Your task to perform on an android device: empty trash in the gmail app Image 0: 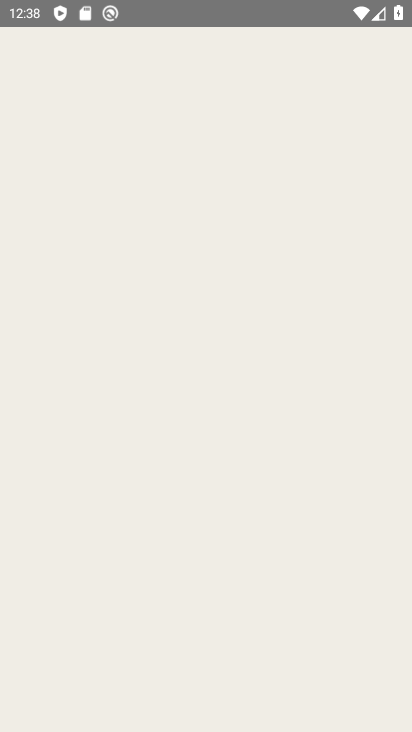
Step 0: drag from (365, 531) to (304, 241)
Your task to perform on an android device: empty trash in the gmail app Image 1: 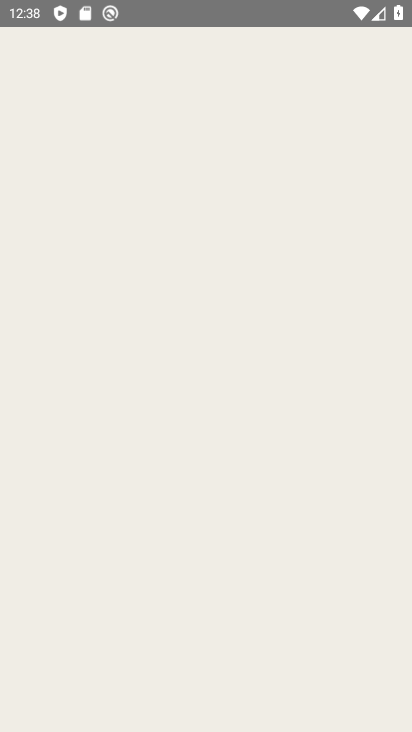
Step 1: press home button
Your task to perform on an android device: empty trash in the gmail app Image 2: 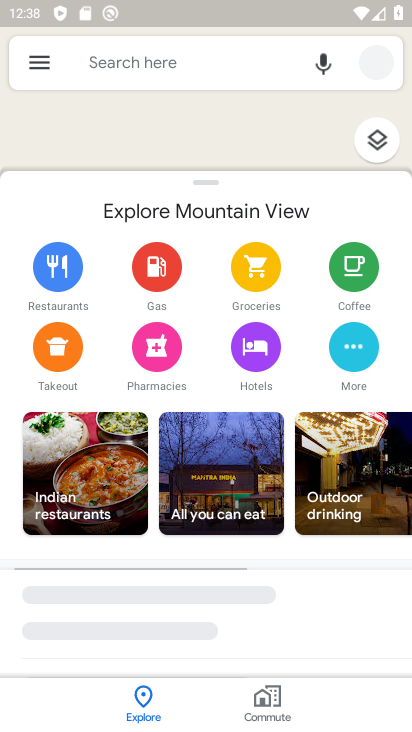
Step 2: drag from (304, 241) to (370, 516)
Your task to perform on an android device: empty trash in the gmail app Image 3: 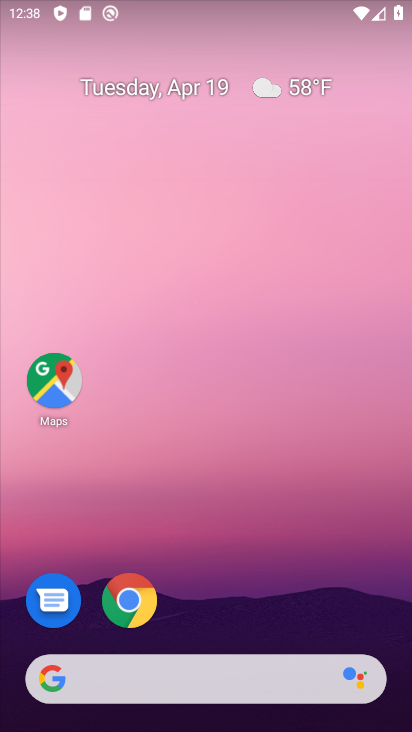
Step 3: drag from (307, 583) to (204, 179)
Your task to perform on an android device: empty trash in the gmail app Image 4: 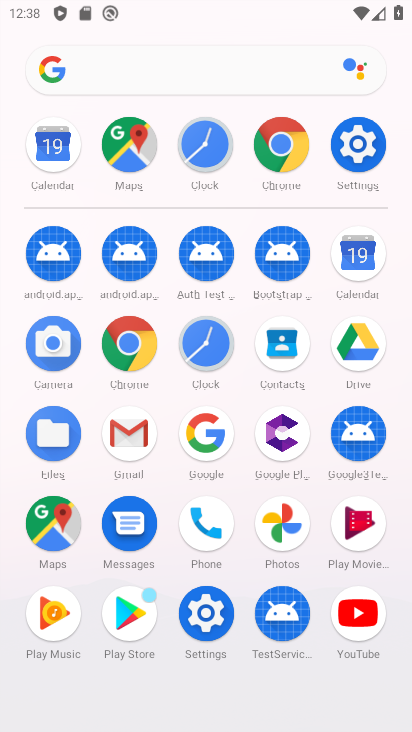
Step 4: click (126, 450)
Your task to perform on an android device: empty trash in the gmail app Image 5: 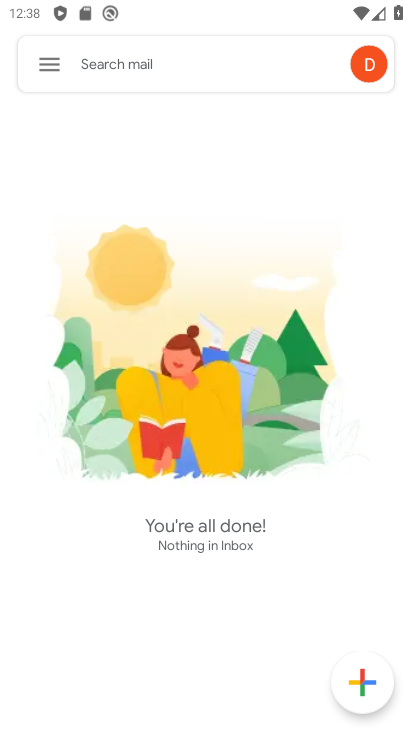
Step 5: click (48, 74)
Your task to perform on an android device: empty trash in the gmail app Image 6: 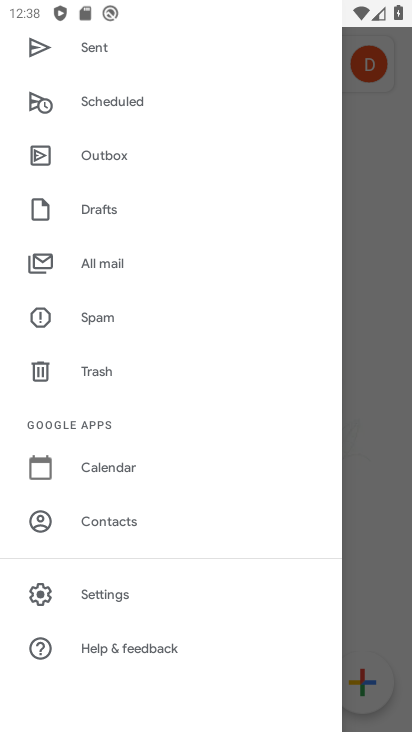
Step 6: click (196, 356)
Your task to perform on an android device: empty trash in the gmail app Image 7: 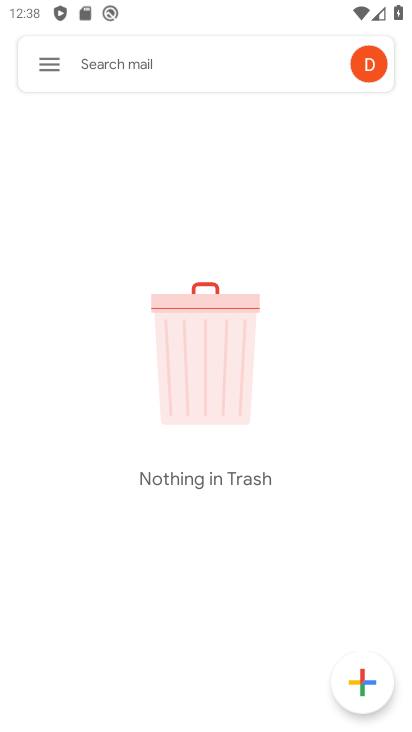
Step 7: task complete